Your task to perform on an android device: turn off priority inbox in the gmail app Image 0: 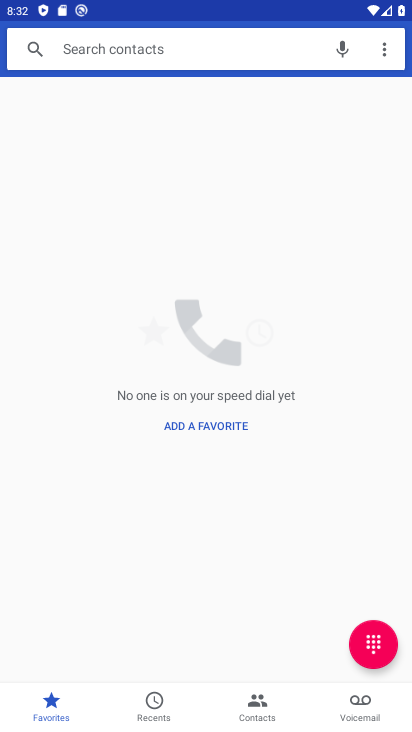
Step 0: press home button
Your task to perform on an android device: turn off priority inbox in the gmail app Image 1: 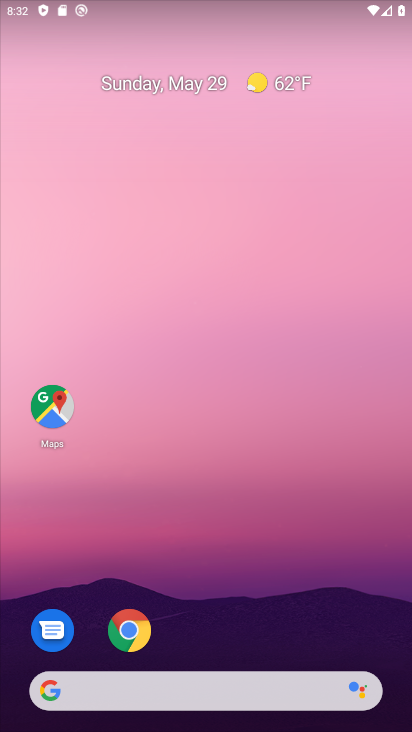
Step 1: drag from (395, 689) to (307, 44)
Your task to perform on an android device: turn off priority inbox in the gmail app Image 2: 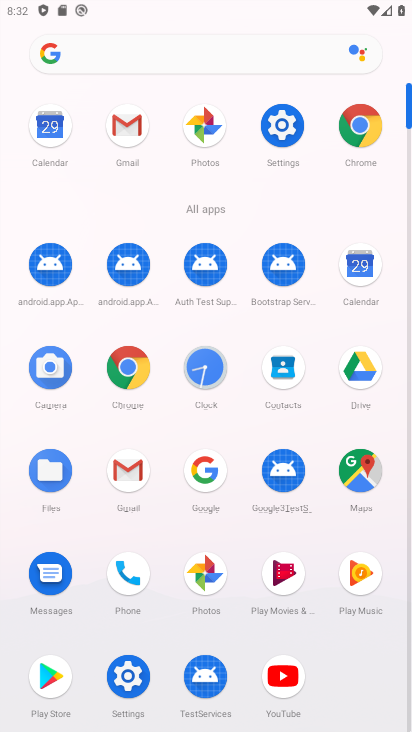
Step 2: click (126, 460)
Your task to perform on an android device: turn off priority inbox in the gmail app Image 3: 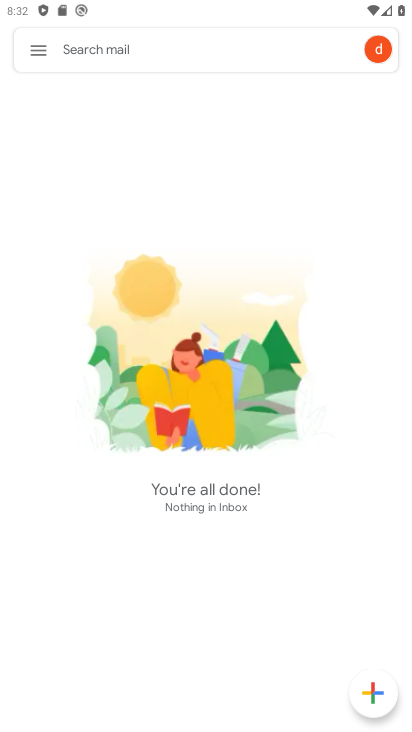
Step 3: click (40, 48)
Your task to perform on an android device: turn off priority inbox in the gmail app Image 4: 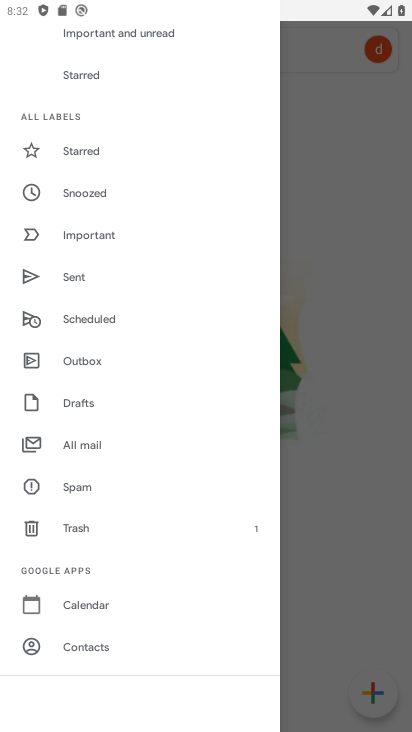
Step 4: drag from (151, 628) to (148, 337)
Your task to perform on an android device: turn off priority inbox in the gmail app Image 5: 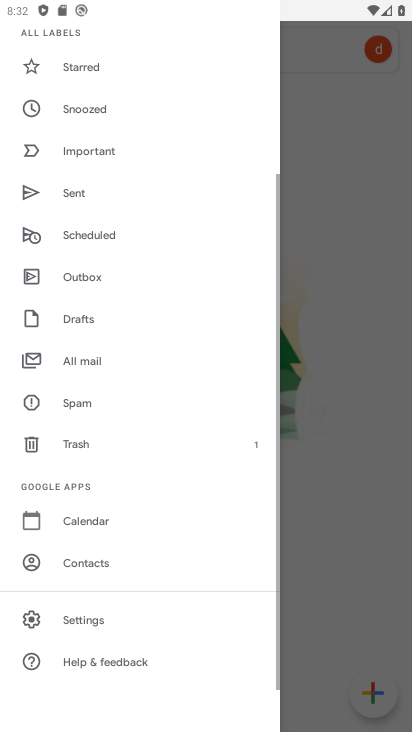
Step 5: click (71, 610)
Your task to perform on an android device: turn off priority inbox in the gmail app Image 6: 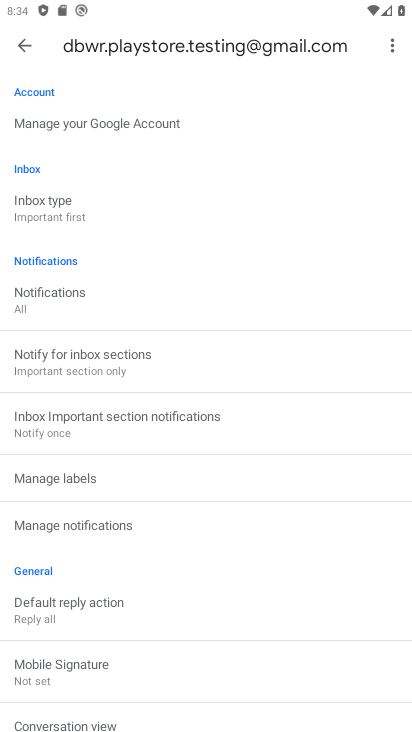
Step 6: click (42, 216)
Your task to perform on an android device: turn off priority inbox in the gmail app Image 7: 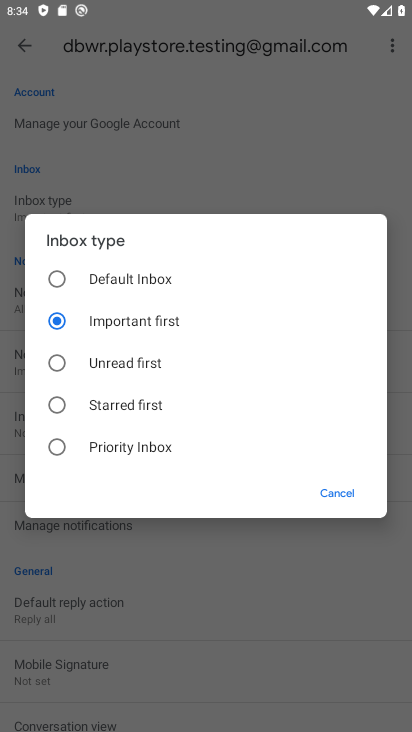
Step 7: task complete